Your task to perform on an android device: check the backup settings in the google photos Image 0: 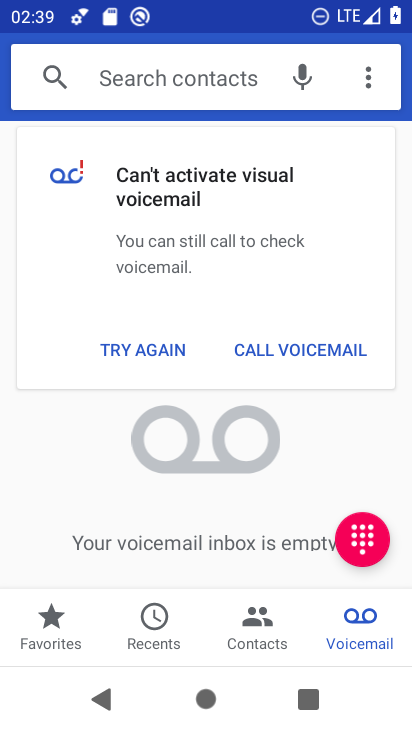
Step 0: press home button
Your task to perform on an android device: check the backup settings in the google photos Image 1: 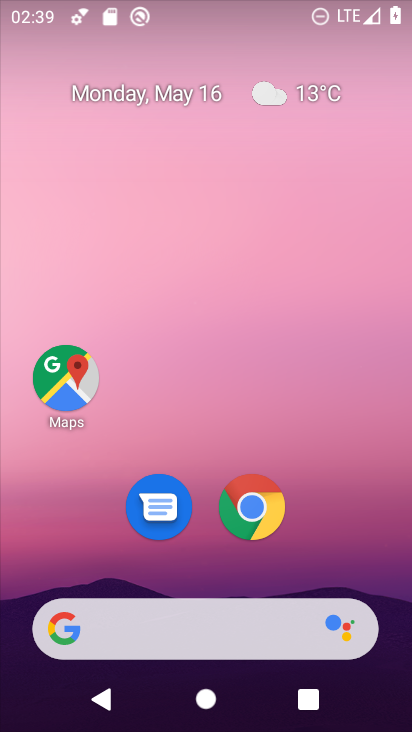
Step 1: drag from (319, 566) to (200, 63)
Your task to perform on an android device: check the backup settings in the google photos Image 2: 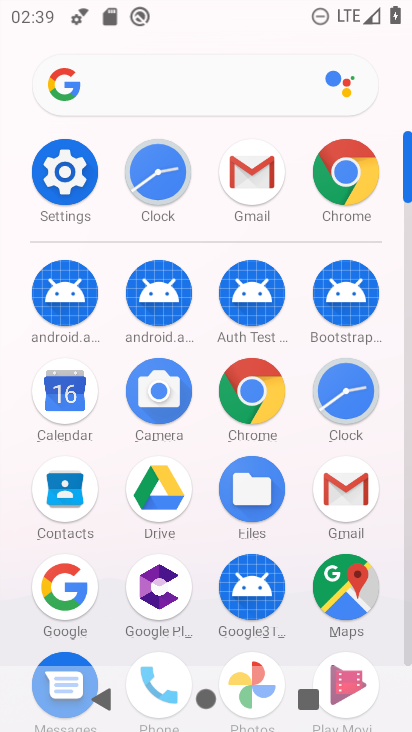
Step 2: click (252, 660)
Your task to perform on an android device: check the backup settings in the google photos Image 3: 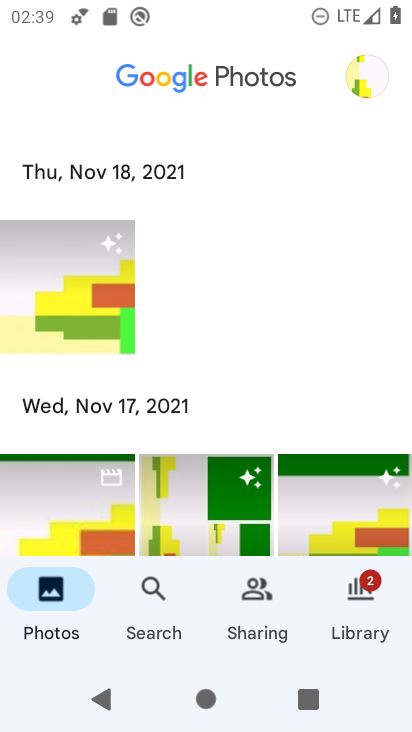
Step 3: click (368, 75)
Your task to perform on an android device: check the backup settings in the google photos Image 4: 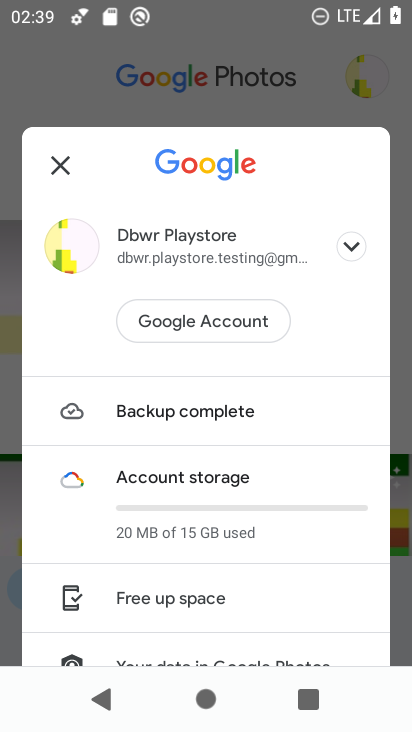
Step 4: drag from (218, 582) to (192, 168)
Your task to perform on an android device: check the backup settings in the google photos Image 5: 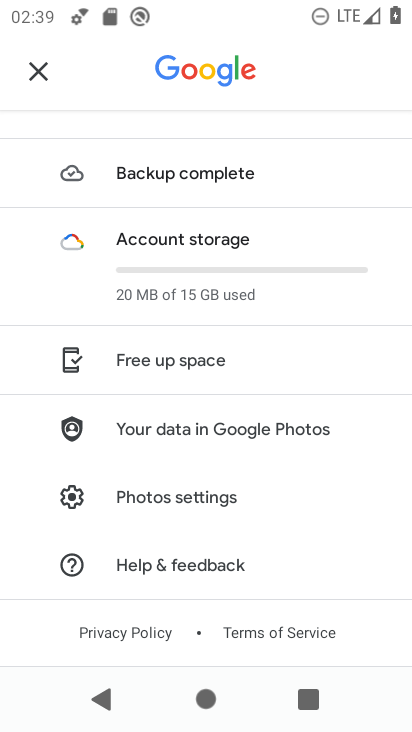
Step 5: click (193, 495)
Your task to perform on an android device: check the backup settings in the google photos Image 6: 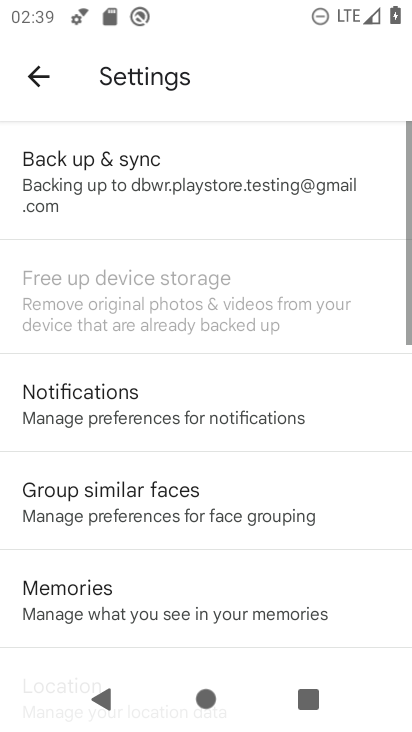
Step 6: click (82, 158)
Your task to perform on an android device: check the backup settings in the google photos Image 7: 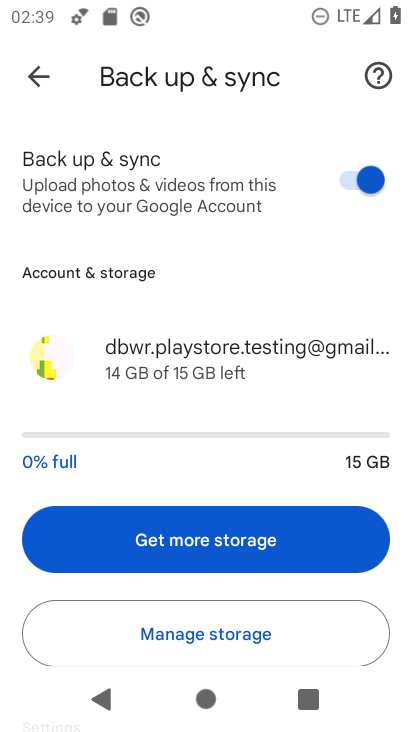
Step 7: task complete